Your task to perform on an android device: toggle wifi Image 0: 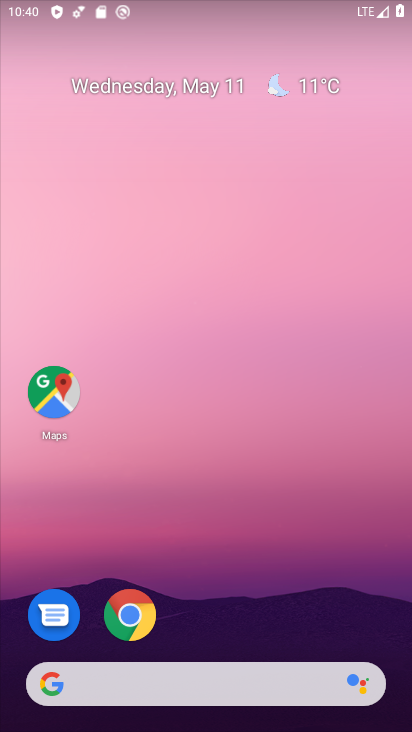
Step 0: drag from (260, 8) to (312, 587)
Your task to perform on an android device: toggle wifi Image 1: 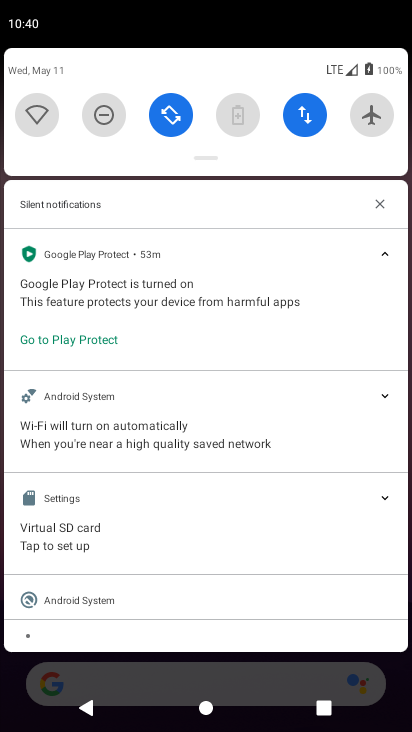
Step 1: click (40, 112)
Your task to perform on an android device: toggle wifi Image 2: 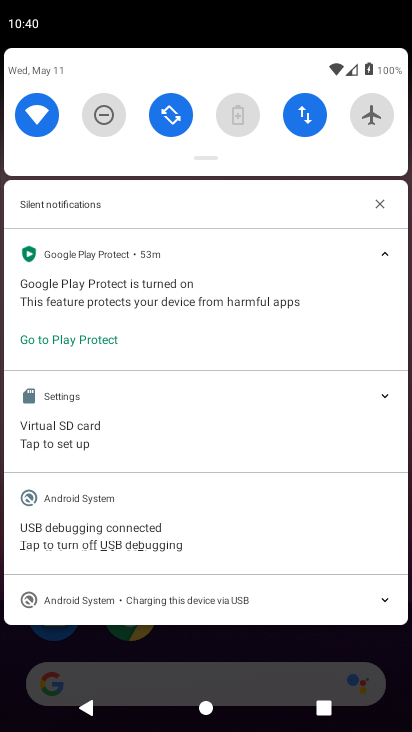
Step 2: task complete